Your task to perform on an android device: set an alarm Image 0: 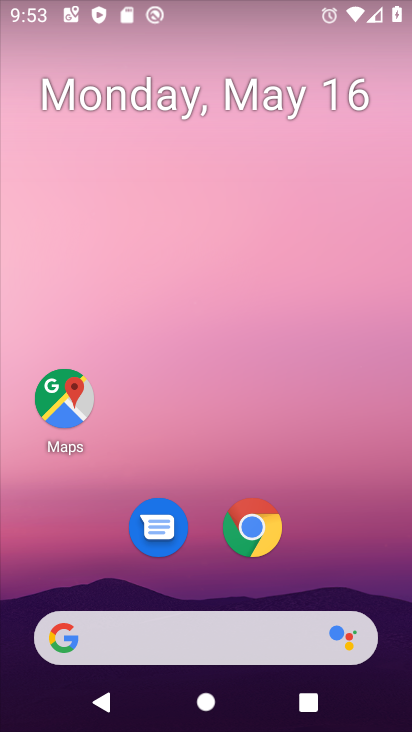
Step 0: drag from (332, 516) to (311, 8)
Your task to perform on an android device: set an alarm Image 1: 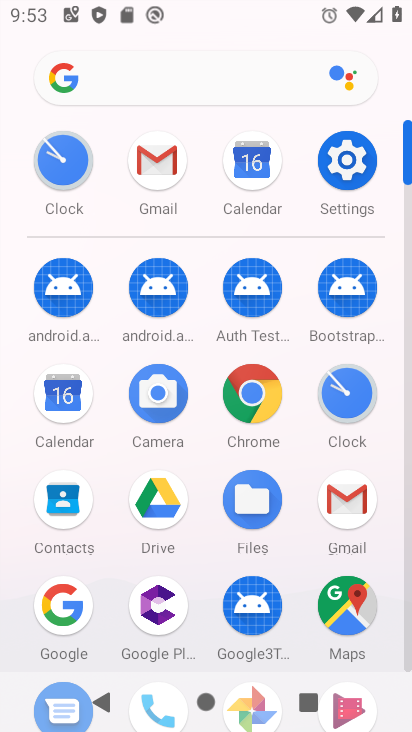
Step 1: click (68, 207)
Your task to perform on an android device: set an alarm Image 2: 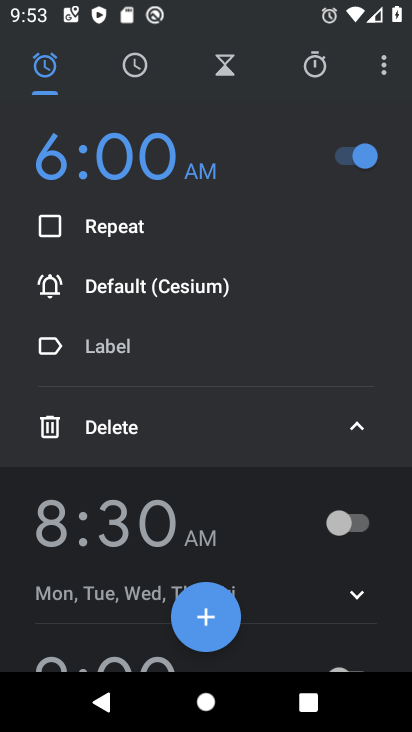
Step 2: click (202, 619)
Your task to perform on an android device: set an alarm Image 3: 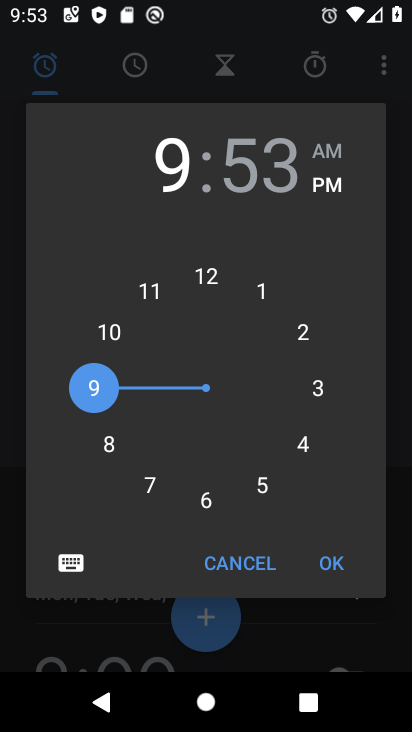
Step 3: click (262, 481)
Your task to perform on an android device: set an alarm Image 4: 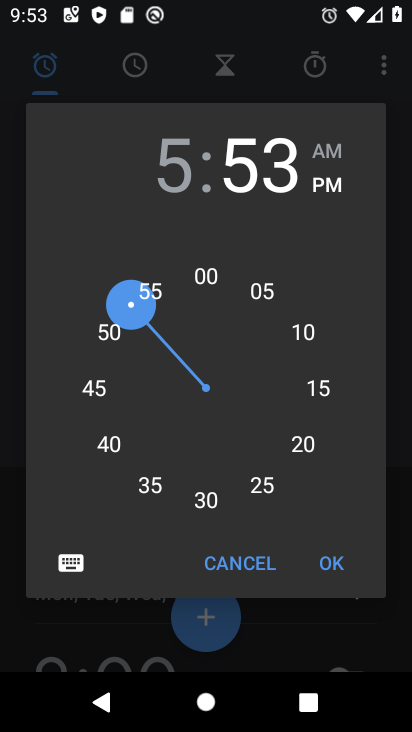
Step 4: click (215, 279)
Your task to perform on an android device: set an alarm Image 5: 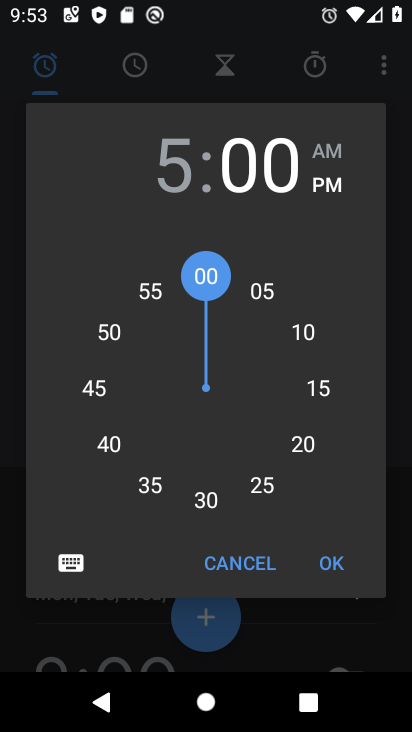
Step 5: click (310, 153)
Your task to perform on an android device: set an alarm Image 6: 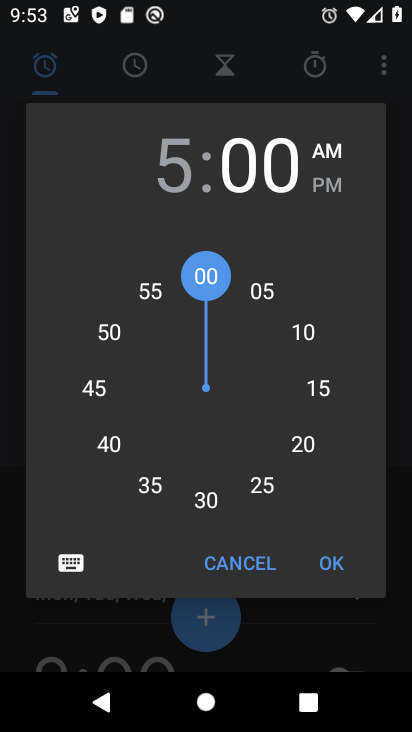
Step 6: click (333, 568)
Your task to perform on an android device: set an alarm Image 7: 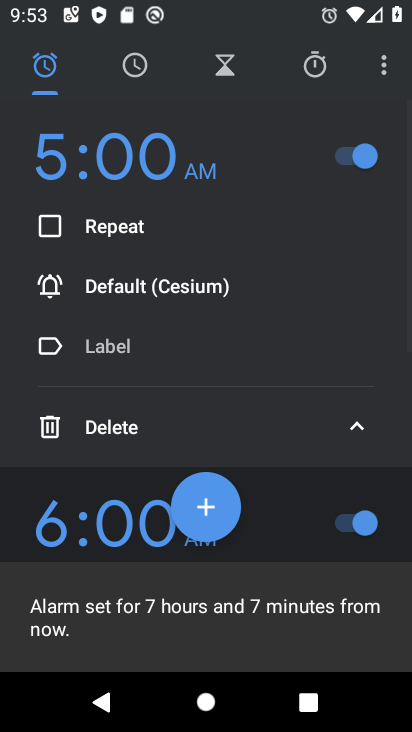
Step 7: task complete